Your task to perform on an android device: Go to Amazon Image 0: 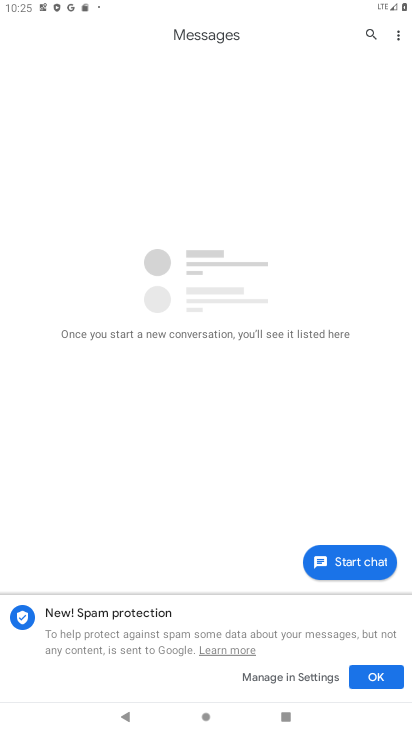
Step 0: press home button
Your task to perform on an android device: Go to Amazon Image 1: 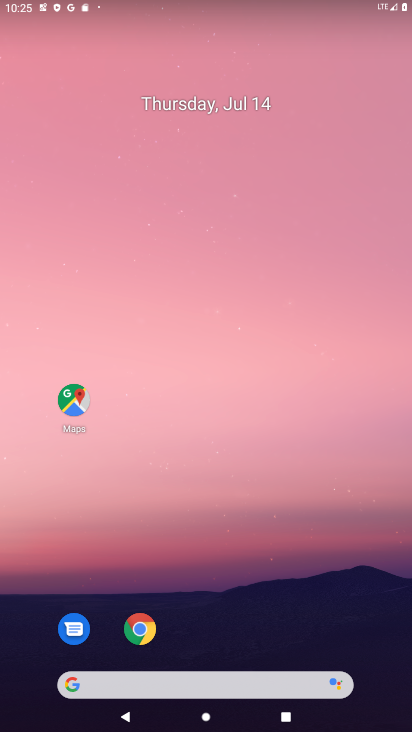
Step 1: drag from (47, 535) to (233, 74)
Your task to perform on an android device: Go to Amazon Image 2: 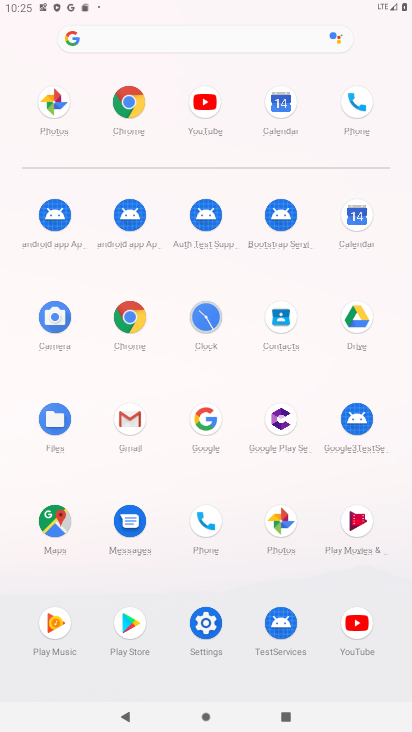
Step 2: click (113, 334)
Your task to perform on an android device: Go to Amazon Image 3: 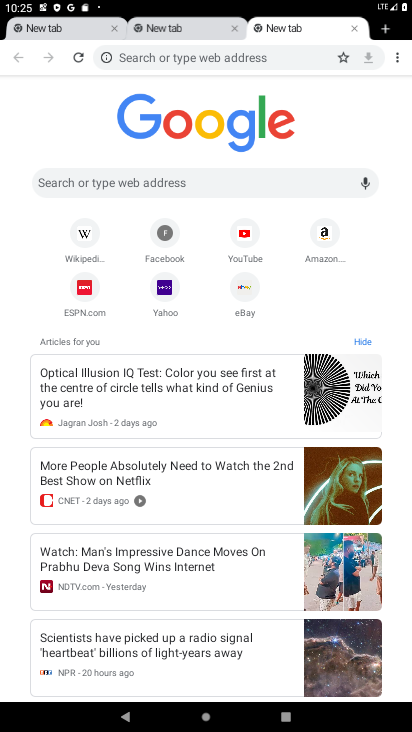
Step 3: click (327, 234)
Your task to perform on an android device: Go to Amazon Image 4: 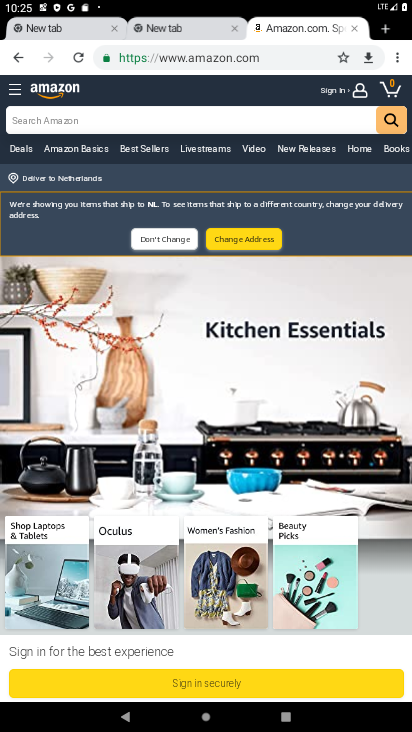
Step 4: task complete